Your task to perform on an android device: check storage Image 0: 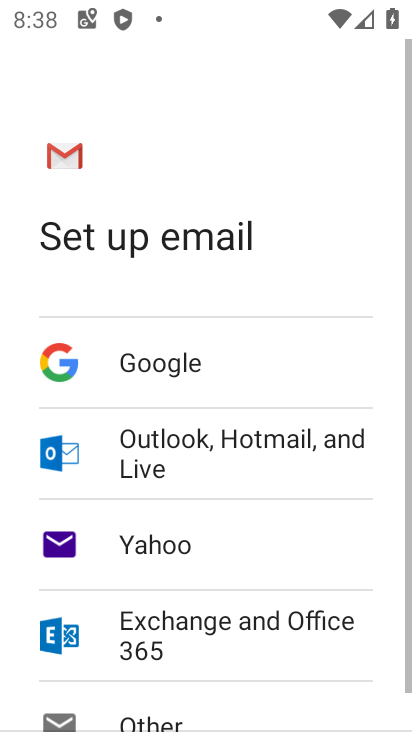
Step 0: press home button
Your task to perform on an android device: check storage Image 1: 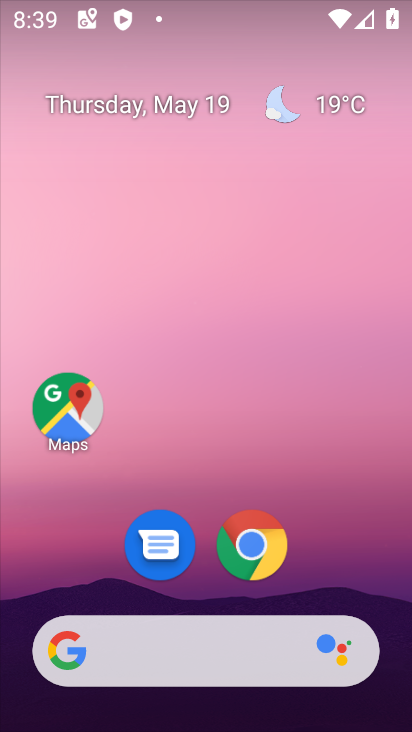
Step 1: drag from (324, 562) to (269, 57)
Your task to perform on an android device: check storage Image 2: 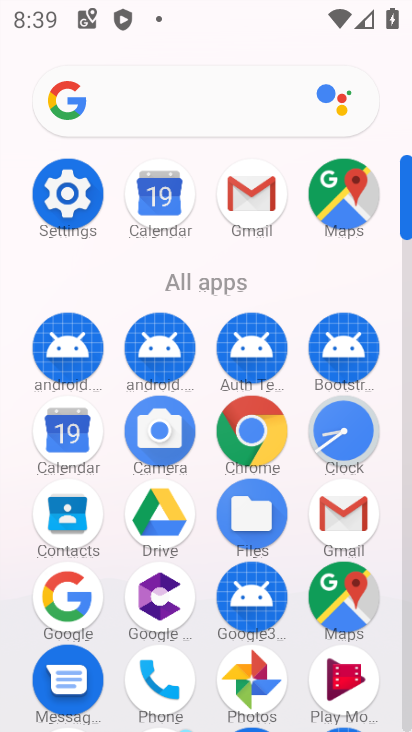
Step 2: click (62, 231)
Your task to perform on an android device: check storage Image 3: 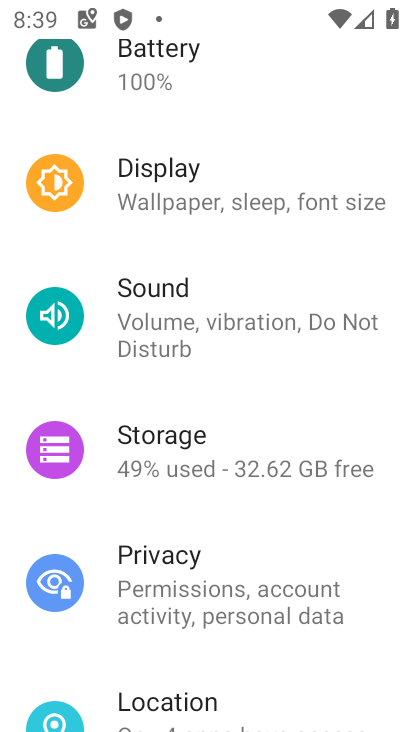
Step 3: drag from (248, 237) to (245, 562)
Your task to perform on an android device: check storage Image 4: 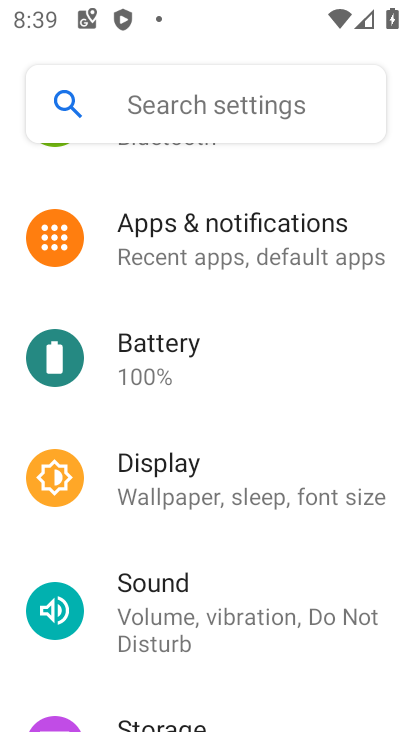
Step 4: drag from (248, 497) to (222, 730)
Your task to perform on an android device: check storage Image 5: 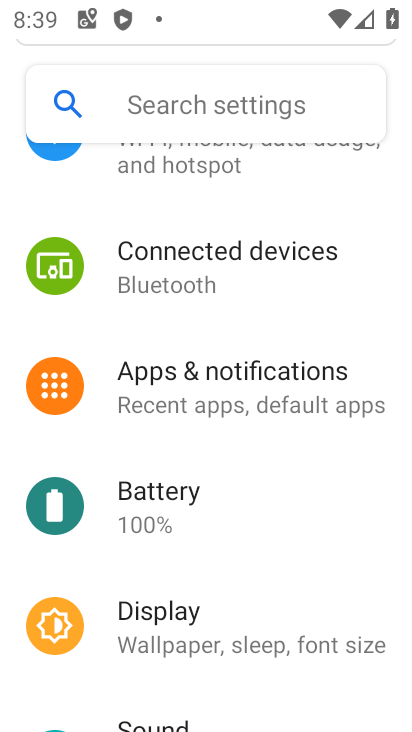
Step 5: drag from (218, 623) to (251, 183)
Your task to perform on an android device: check storage Image 6: 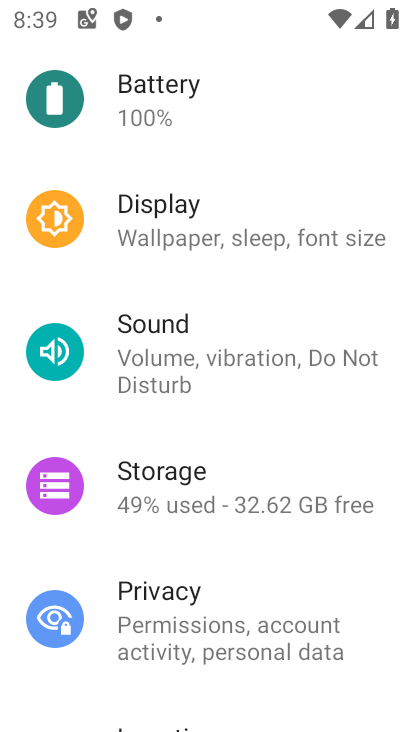
Step 6: drag from (155, 708) to (173, 558)
Your task to perform on an android device: check storage Image 7: 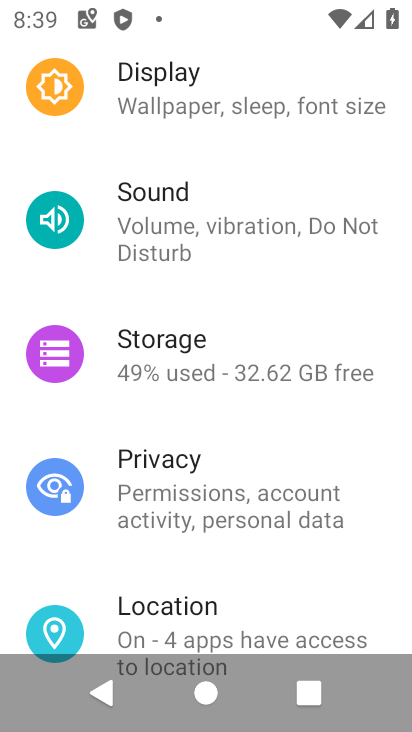
Step 7: click (247, 361)
Your task to perform on an android device: check storage Image 8: 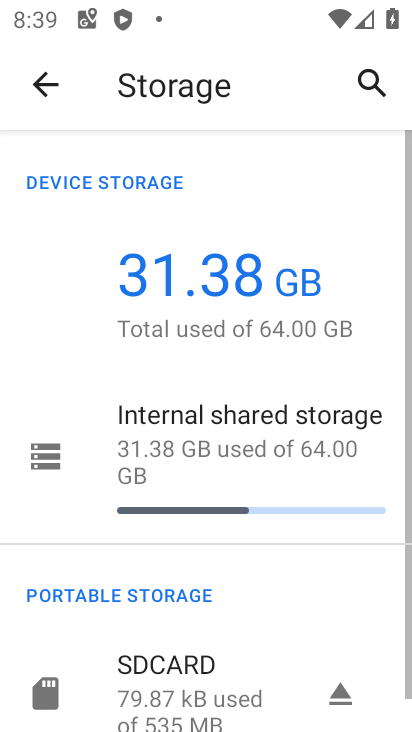
Step 8: task complete